Your task to perform on an android device: Search for Italian restaurants on Maps Image 0: 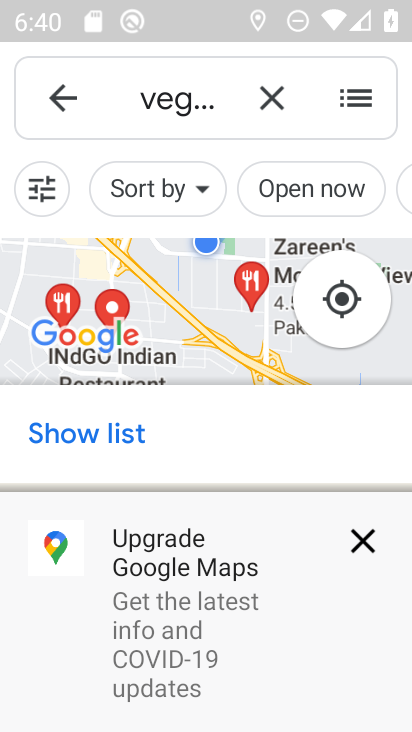
Step 0: press home button
Your task to perform on an android device: Search for Italian restaurants on Maps Image 1: 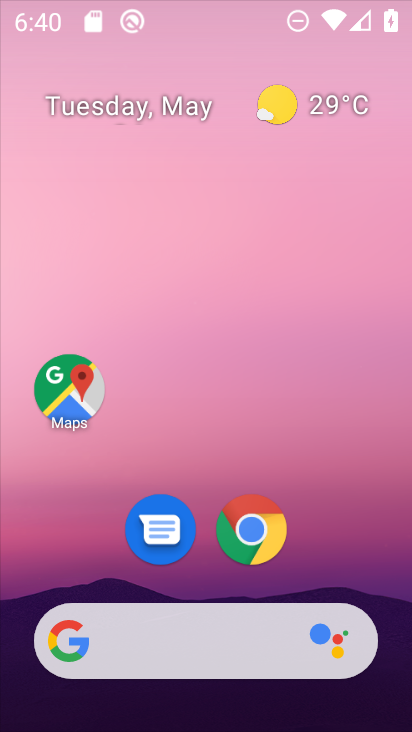
Step 1: drag from (364, 616) to (327, 9)
Your task to perform on an android device: Search for Italian restaurants on Maps Image 2: 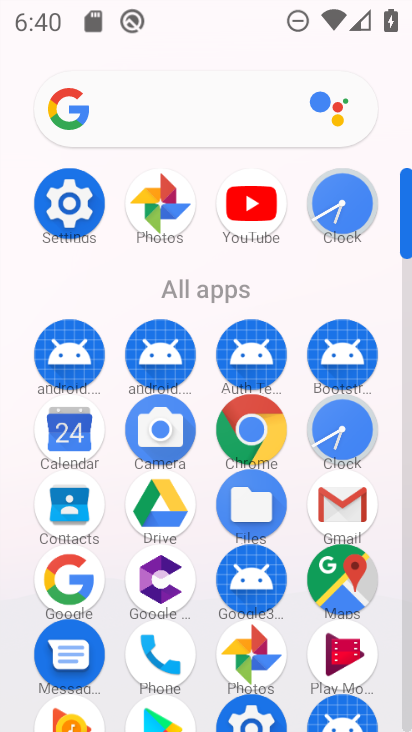
Step 2: click (346, 585)
Your task to perform on an android device: Search for Italian restaurants on Maps Image 3: 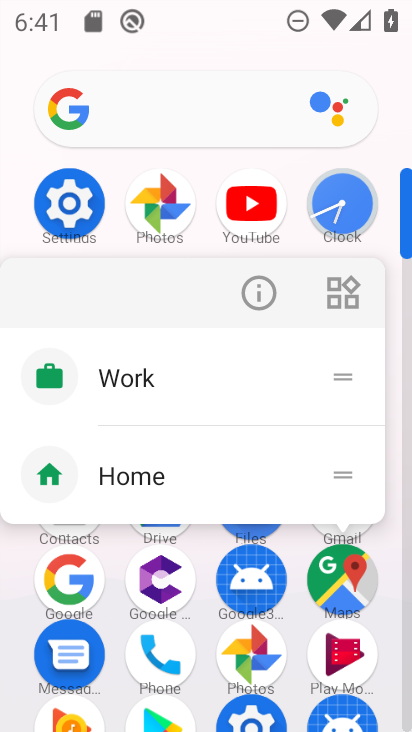
Step 3: click (353, 549)
Your task to perform on an android device: Search for Italian restaurants on Maps Image 4: 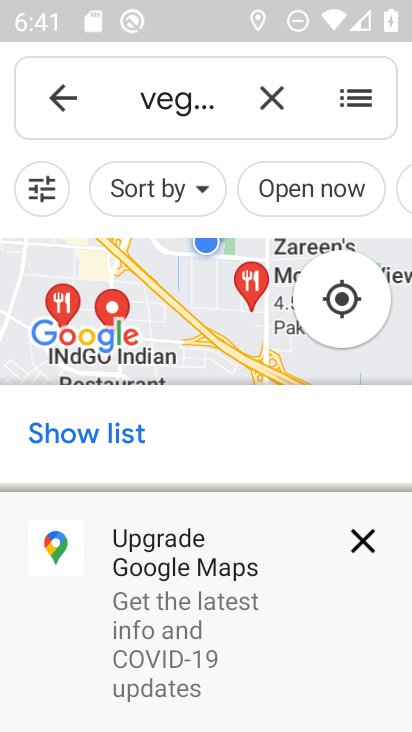
Step 4: click (280, 98)
Your task to perform on an android device: Search for Italian restaurants on Maps Image 5: 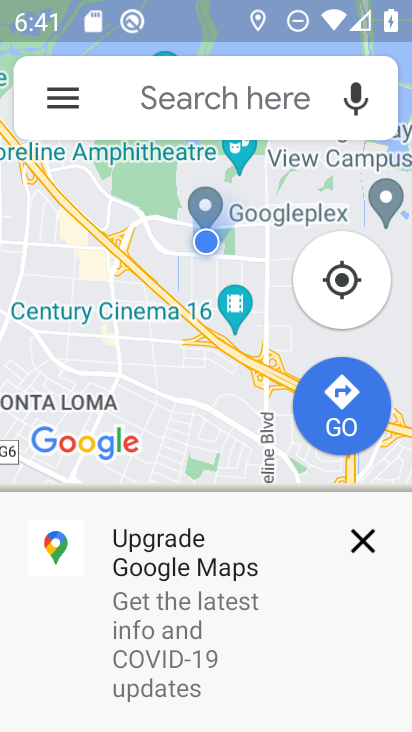
Step 5: click (187, 102)
Your task to perform on an android device: Search for Italian restaurants on Maps Image 6: 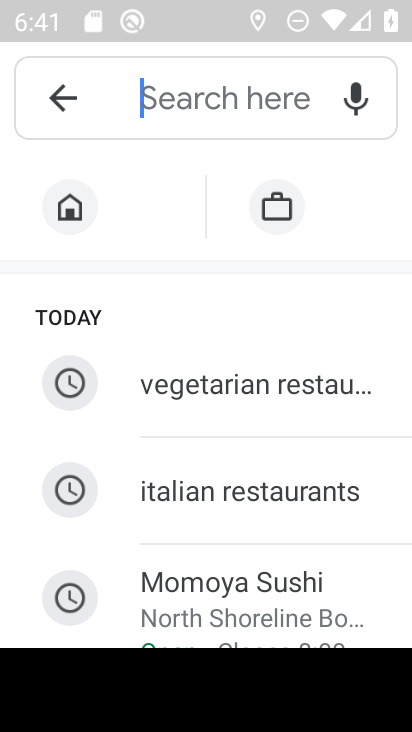
Step 6: click (219, 491)
Your task to perform on an android device: Search for Italian restaurants on Maps Image 7: 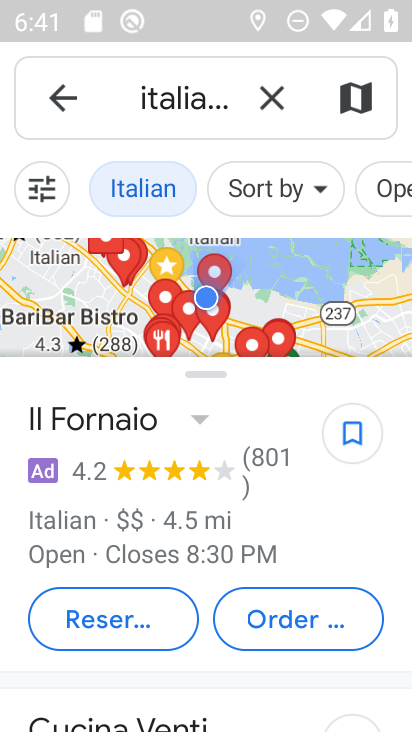
Step 7: task complete